Your task to perform on an android device: Open calendar and show me the first week of next month Image 0: 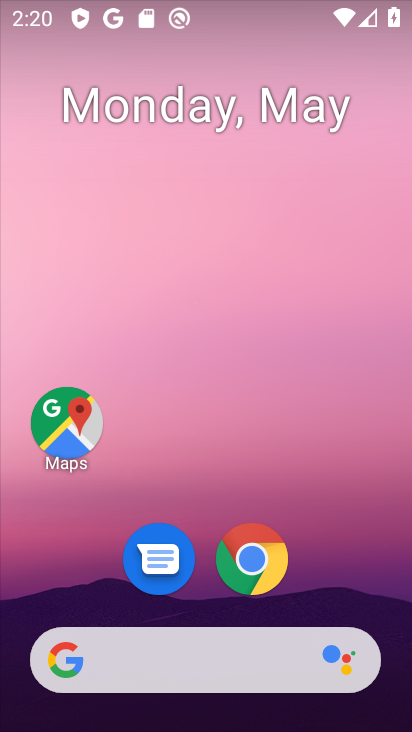
Step 0: drag from (316, 598) to (316, 43)
Your task to perform on an android device: Open calendar and show me the first week of next month Image 1: 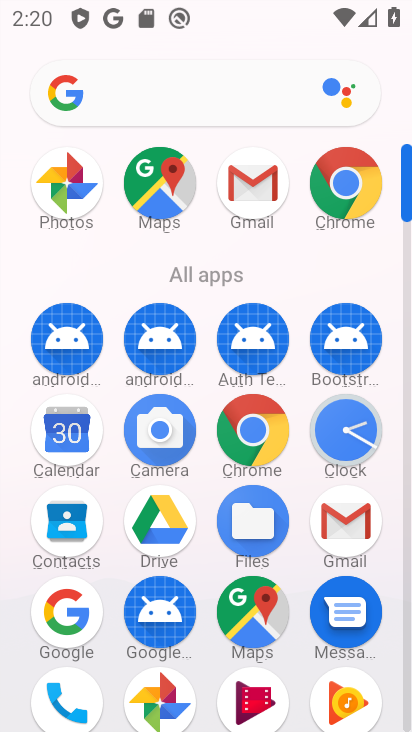
Step 1: click (65, 442)
Your task to perform on an android device: Open calendar and show me the first week of next month Image 2: 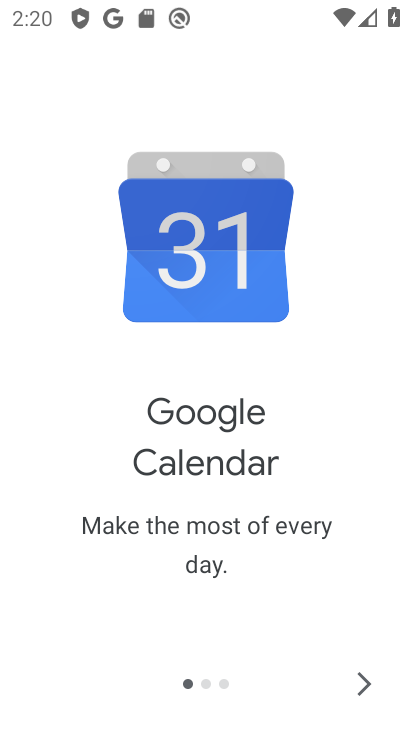
Step 2: click (352, 684)
Your task to perform on an android device: Open calendar and show me the first week of next month Image 3: 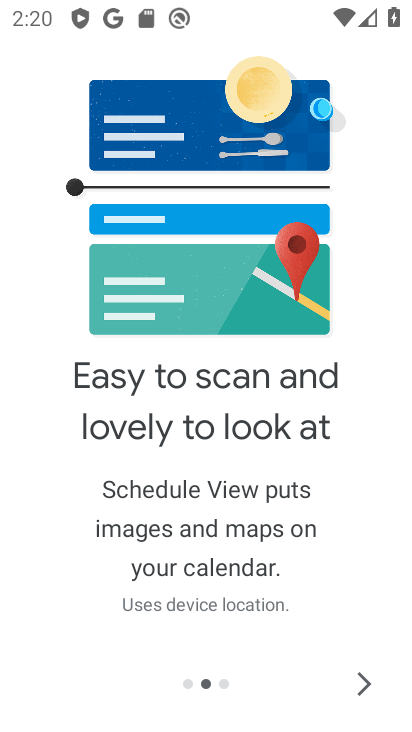
Step 3: click (352, 684)
Your task to perform on an android device: Open calendar and show me the first week of next month Image 4: 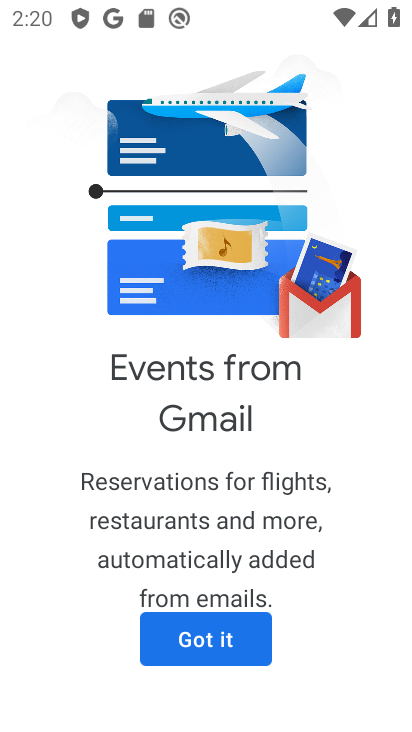
Step 4: click (186, 639)
Your task to perform on an android device: Open calendar and show me the first week of next month Image 5: 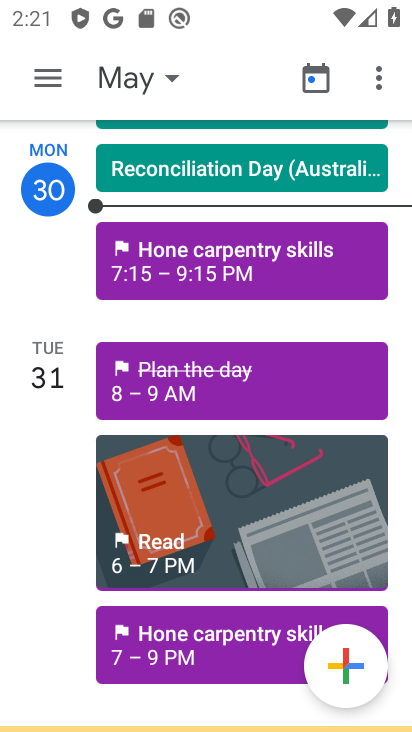
Step 5: click (157, 86)
Your task to perform on an android device: Open calendar and show me the first week of next month Image 6: 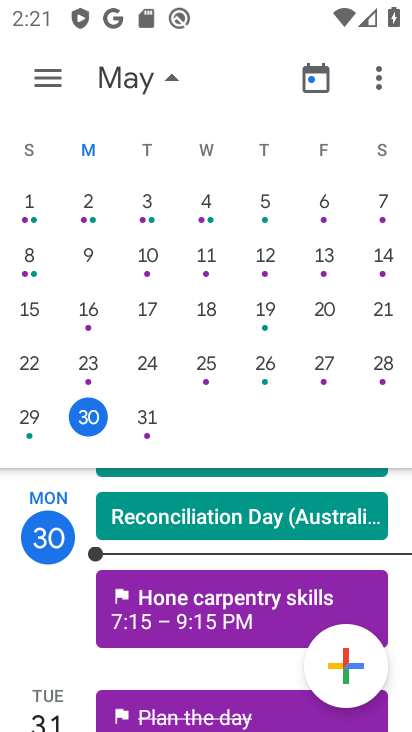
Step 6: task complete